Your task to perform on an android device: Do I have any events tomorrow? Image 0: 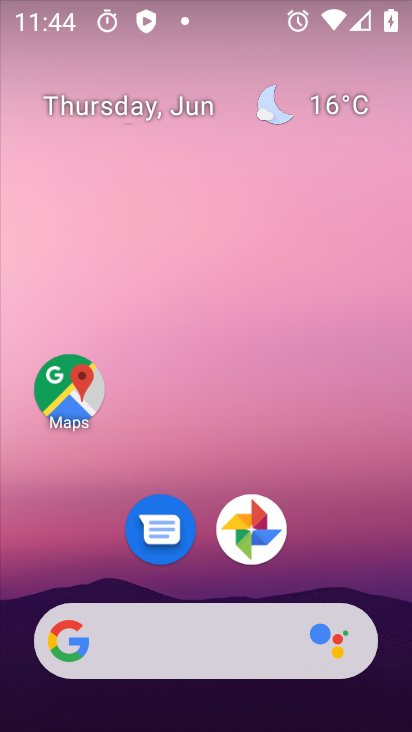
Step 0: drag from (239, 560) to (186, 92)
Your task to perform on an android device: Do I have any events tomorrow? Image 1: 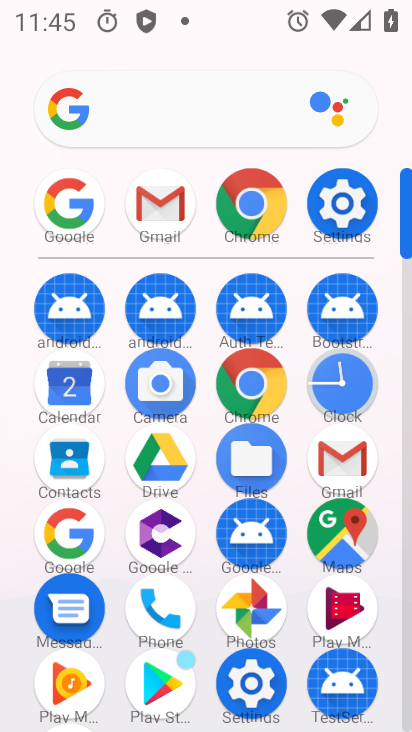
Step 1: click (70, 382)
Your task to perform on an android device: Do I have any events tomorrow? Image 2: 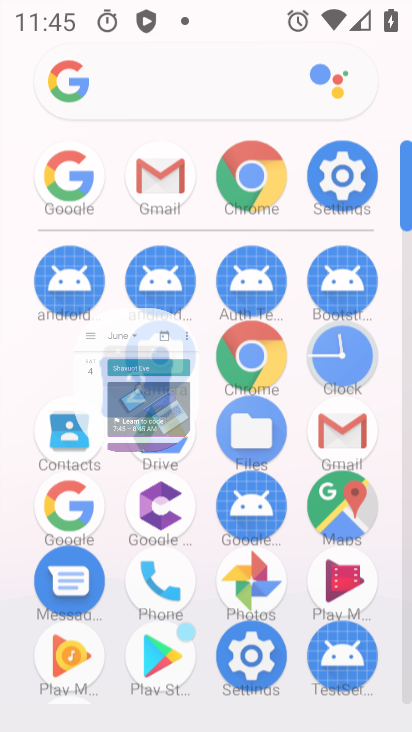
Step 2: click (73, 378)
Your task to perform on an android device: Do I have any events tomorrow? Image 3: 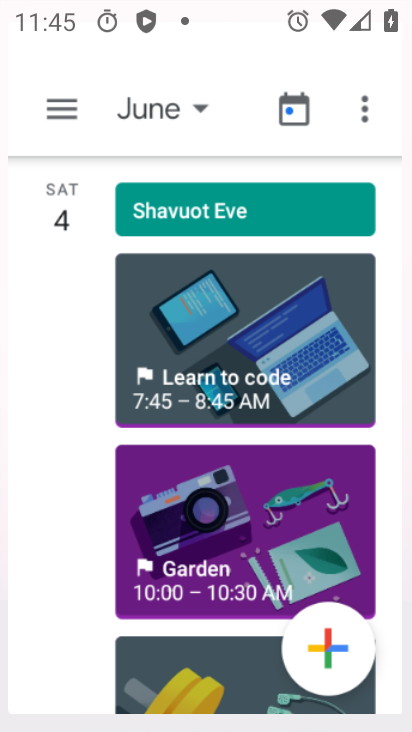
Step 3: click (73, 378)
Your task to perform on an android device: Do I have any events tomorrow? Image 4: 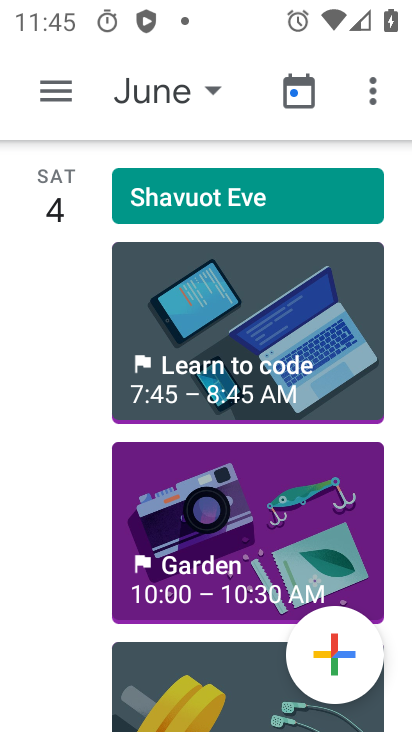
Step 4: click (214, 95)
Your task to perform on an android device: Do I have any events tomorrow? Image 5: 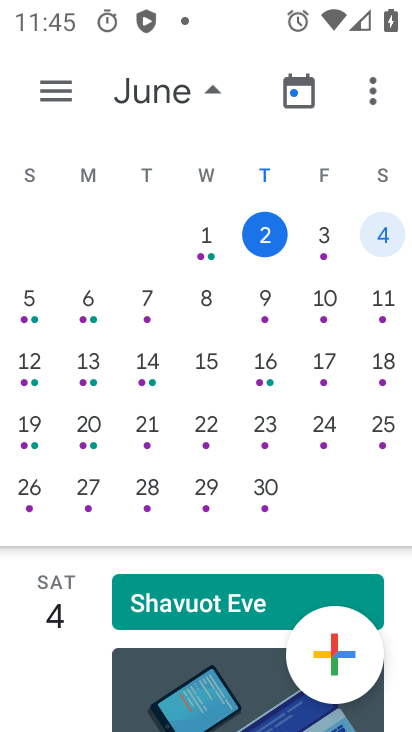
Step 5: click (377, 236)
Your task to perform on an android device: Do I have any events tomorrow? Image 6: 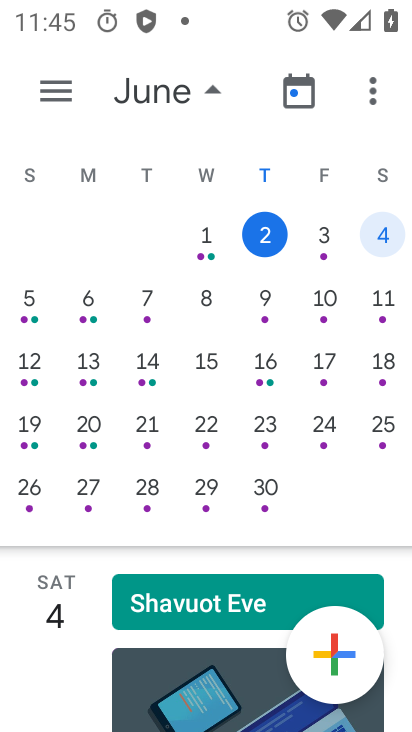
Step 6: task complete